Your task to perform on an android device: find snoozed emails in the gmail app Image 0: 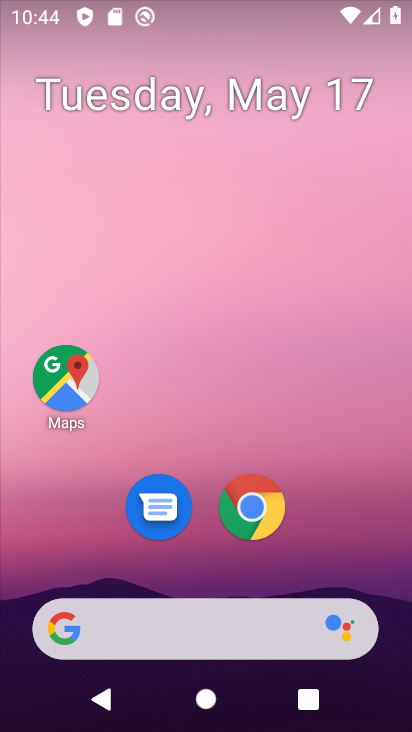
Step 0: drag from (332, 459) to (313, 215)
Your task to perform on an android device: find snoozed emails in the gmail app Image 1: 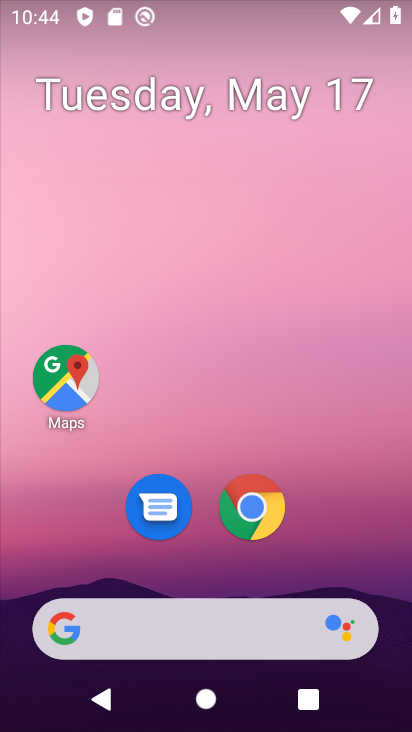
Step 1: drag from (368, 553) to (328, 143)
Your task to perform on an android device: find snoozed emails in the gmail app Image 2: 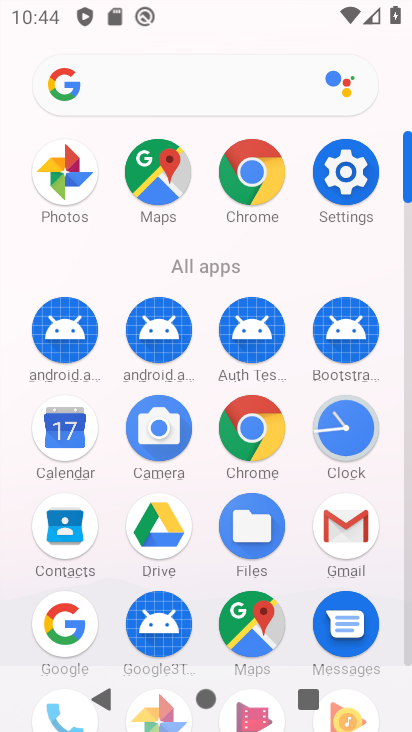
Step 2: click (361, 550)
Your task to perform on an android device: find snoozed emails in the gmail app Image 3: 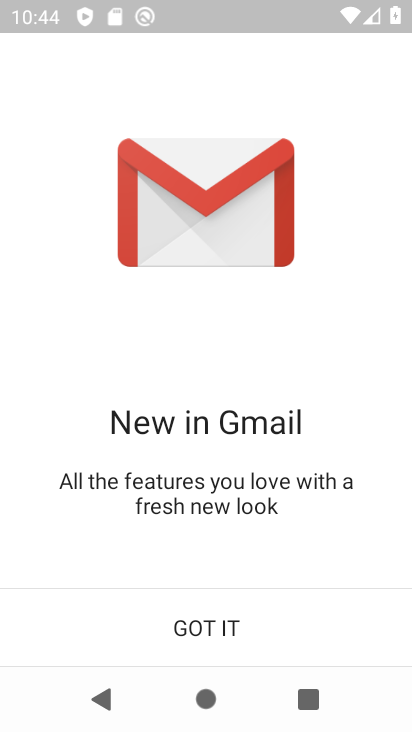
Step 3: click (283, 605)
Your task to perform on an android device: find snoozed emails in the gmail app Image 4: 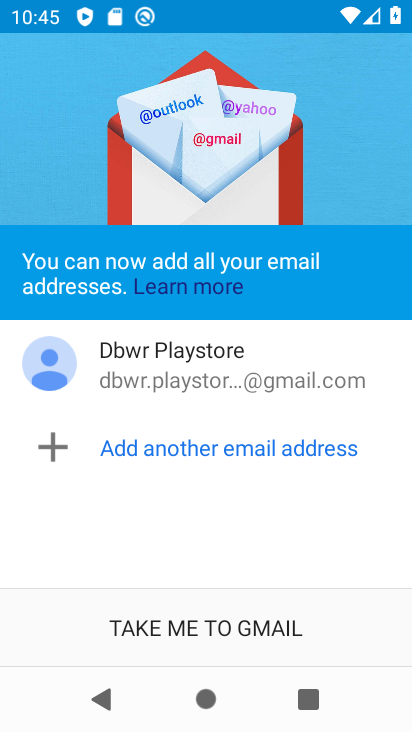
Step 4: click (283, 608)
Your task to perform on an android device: find snoozed emails in the gmail app Image 5: 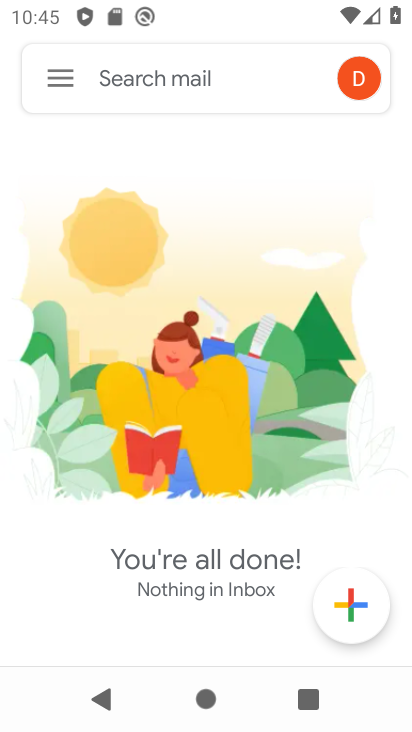
Step 5: click (64, 86)
Your task to perform on an android device: find snoozed emails in the gmail app Image 6: 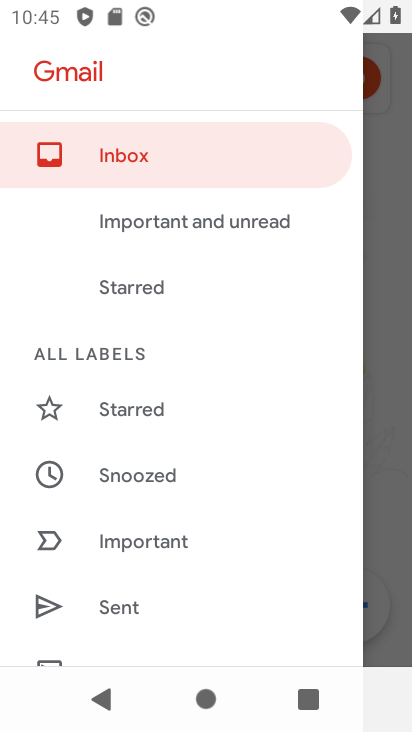
Step 6: click (203, 477)
Your task to perform on an android device: find snoozed emails in the gmail app Image 7: 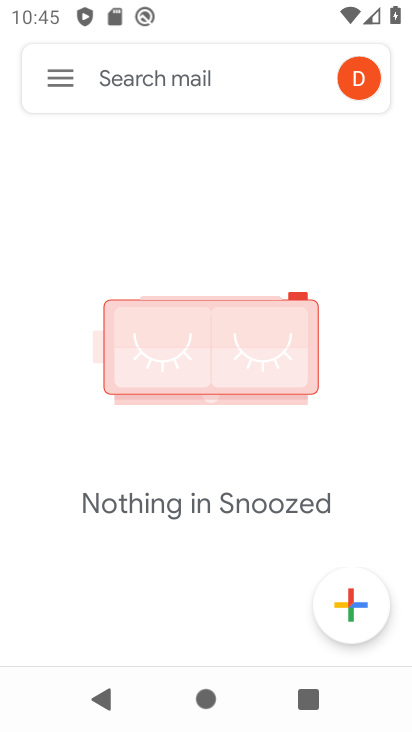
Step 7: task complete